Your task to perform on an android device: Open wifi settings Image 0: 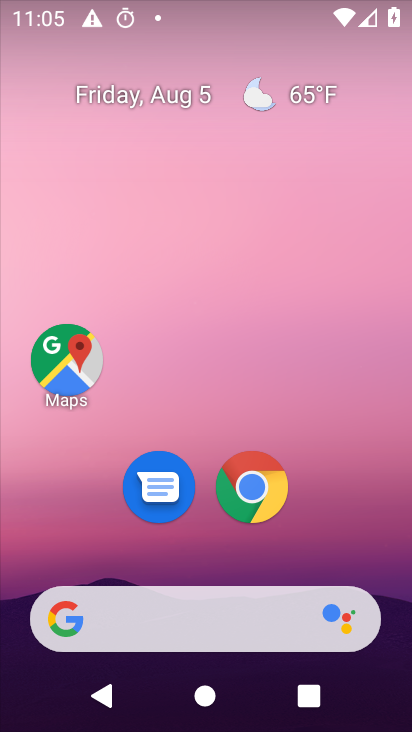
Step 0: drag from (117, 480) to (209, 65)
Your task to perform on an android device: Open wifi settings Image 1: 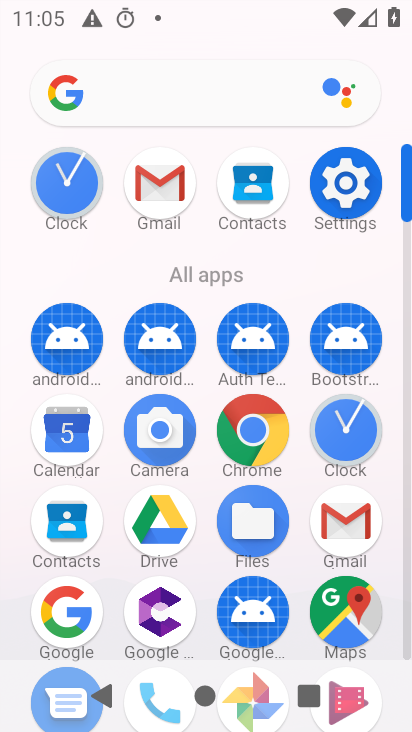
Step 1: click (355, 181)
Your task to perform on an android device: Open wifi settings Image 2: 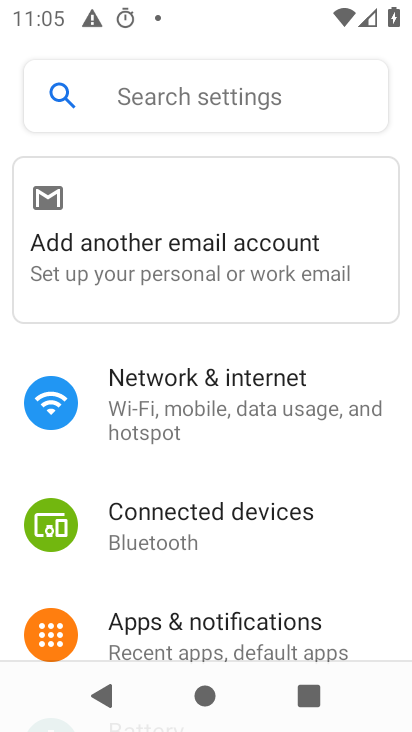
Step 2: task complete